Your task to perform on an android device: turn pop-ups on in chrome Image 0: 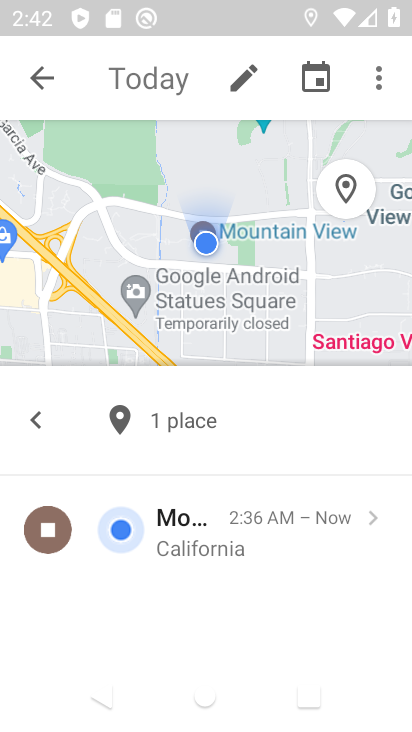
Step 0: press home button
Your task to perform on an android device: turn pop-ups on in chrome Image 1: 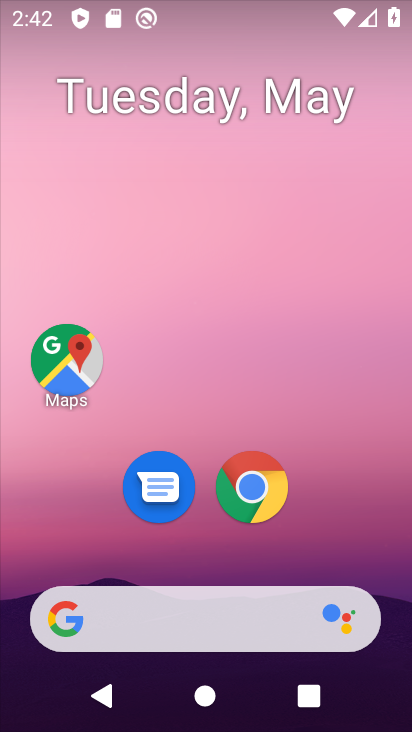
Step 1: click (262, 484)
Your task to perform on an android device: turn pop-ups on in chrome Image 2: 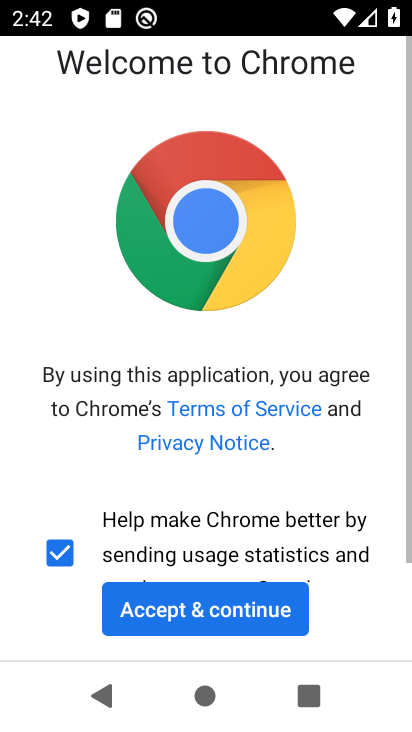
Step 2: click (261, 597)
Your task to perform on an android device: turn pop-ups on in chrome Image 3: 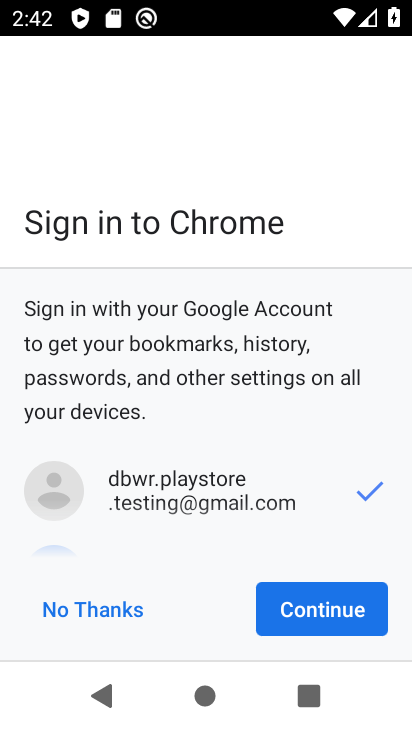
Step 3: click (296, 597)
Your task to perform on an android device: turn pop-ups on in chrome Image 4: 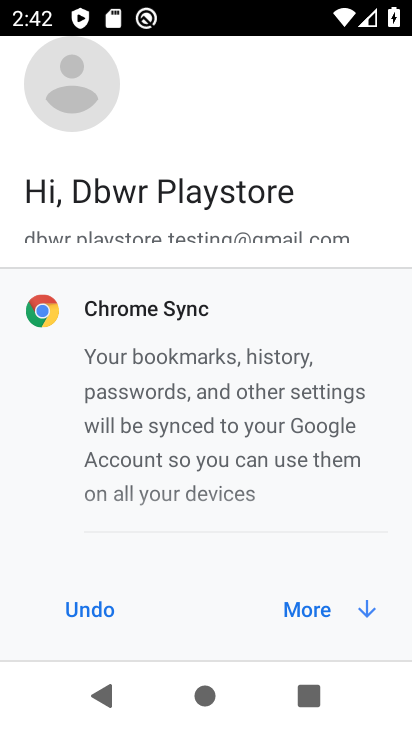
Step 4: click (331, 605)
Your task to perform on an android device: turn pop-ups on in chrome Image 5: 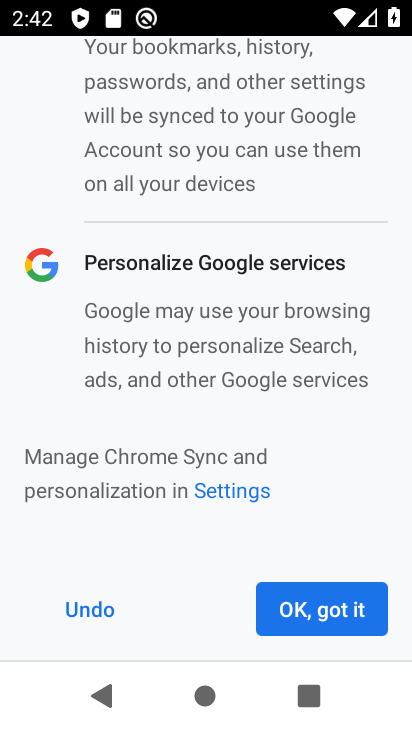
Step 5: click (330, 606)
Your task to perform on an android device: turn pop-ups on in chrome Image 6: 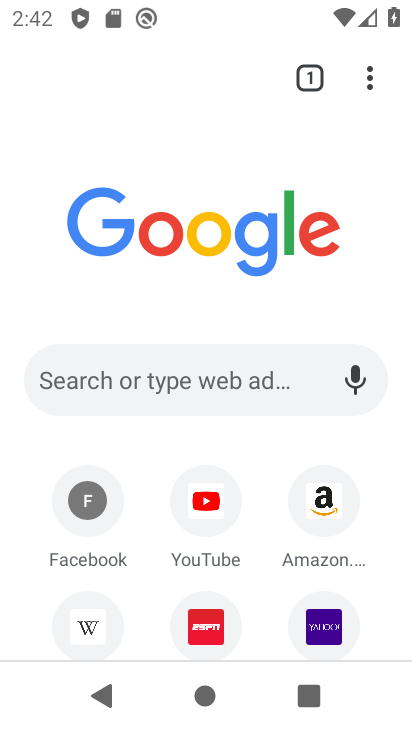
Step 6: drag from (389, 84) to (268, 561)
Your task to perform on an android device: turn pop-ups on in chrome Image 7: 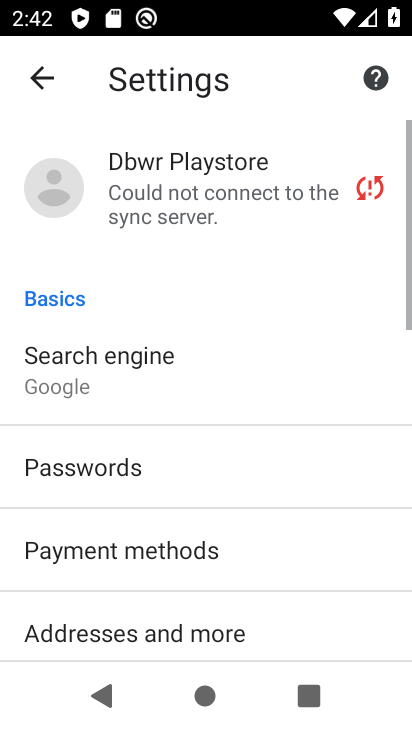
Step 7: drag from (160, 589) to (350, 128)
Your task to perform on an android device: turn pop-ups on in chrome Image 8: 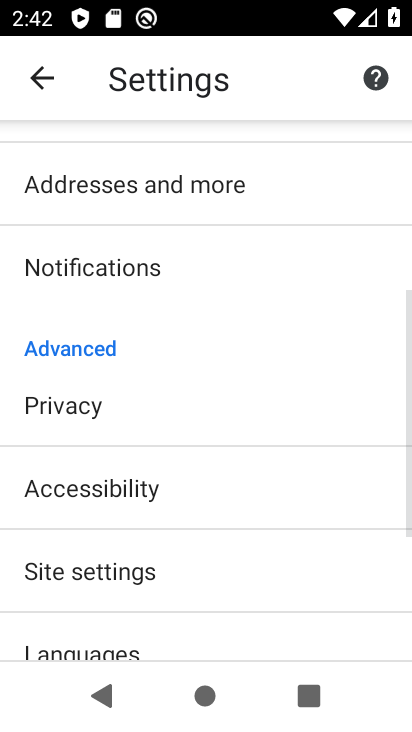
Step 8: drag from (173, 578) to (262, 297)
Your task to perform on an android device: turn pop-ups on in chrome Image 9: 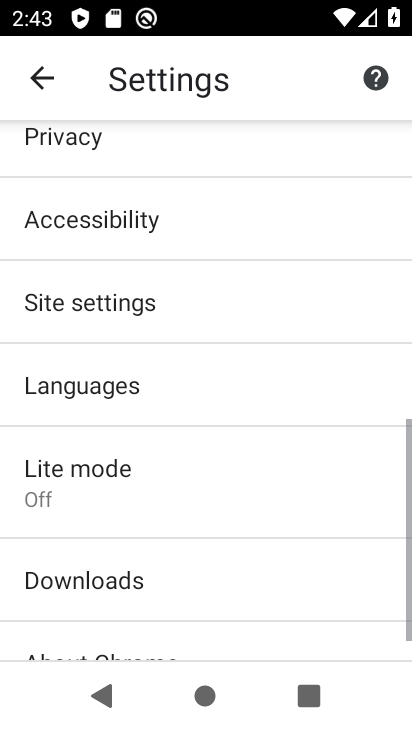
Step 9: click (217, 319)
Your task to perform on an android device: turn pop-ups on in chrome Image 10: 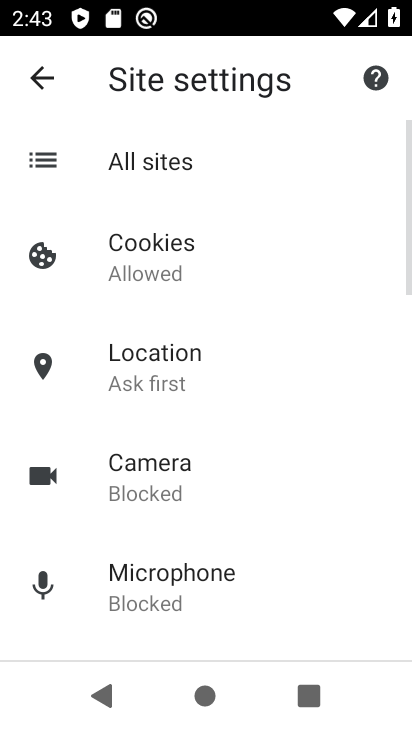
Step 10: drag from (161, 515) to (289, 221)
Your task to perform on an android device: turn pop-ups on in chrome Image 11: 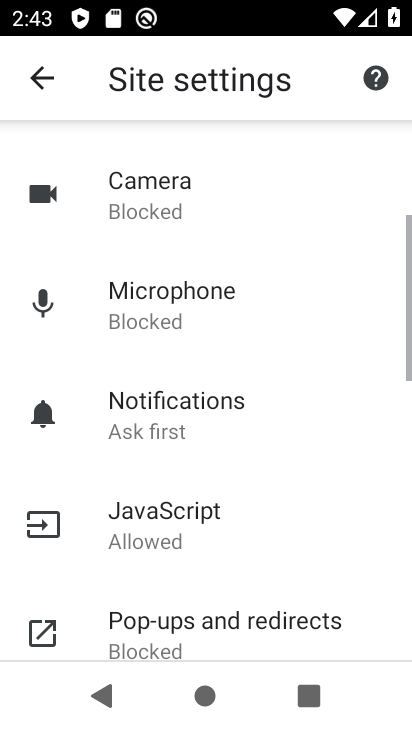
Step 11: drag from (212, 545) to (323, 249)
Your task to perform on an android device: turn pop-ups on in chrome Image 12: 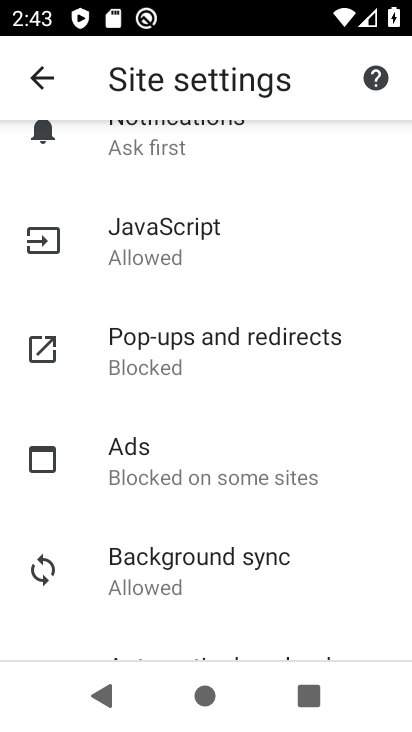
Step 12: click (263, 355)
Your task to perform on an android device: turn pop-ups on in chrome Image 13: 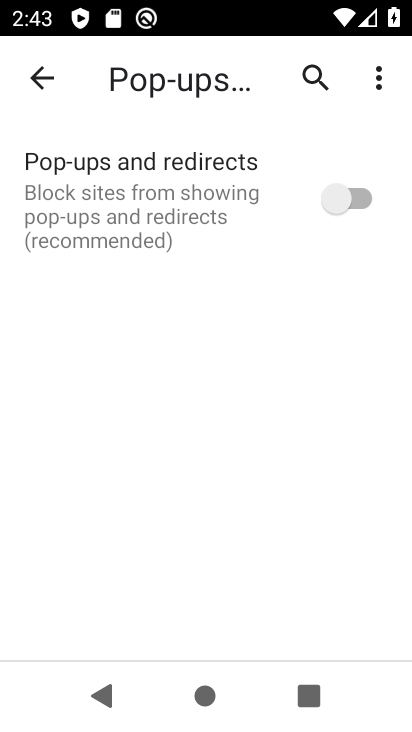
Step 13: click (381, 188)
Your task to perform on an android device: turn pop-ups on in chrome Image 14: 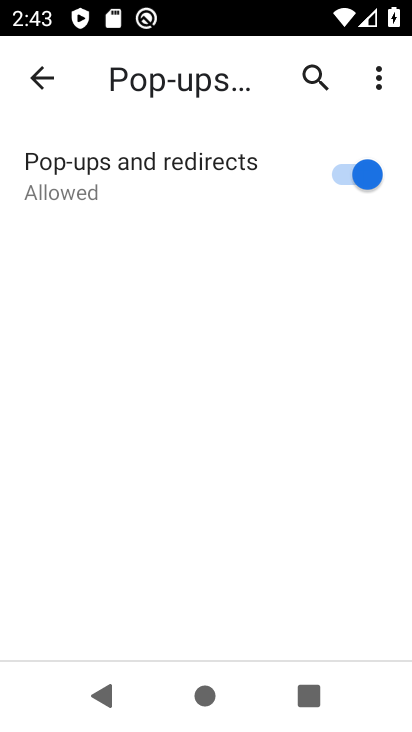
Step 14: task complete